Your task to perform on an android device: change the clock display to digital Image 0: 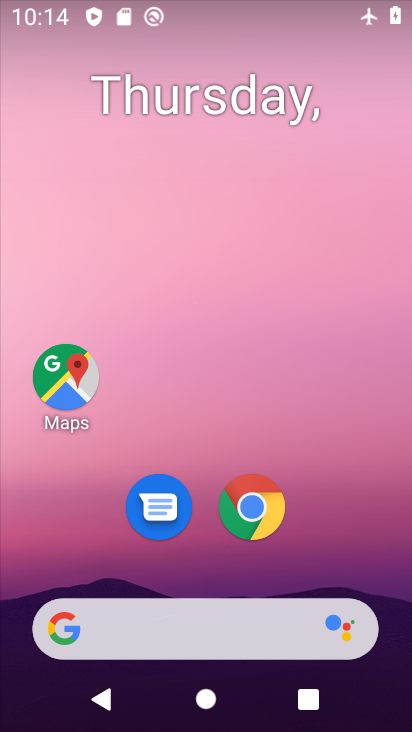
Step 0: drag from (307, 452) to (299, 4)
Your task to perform on an android device: change the clock display to digital Image 1: 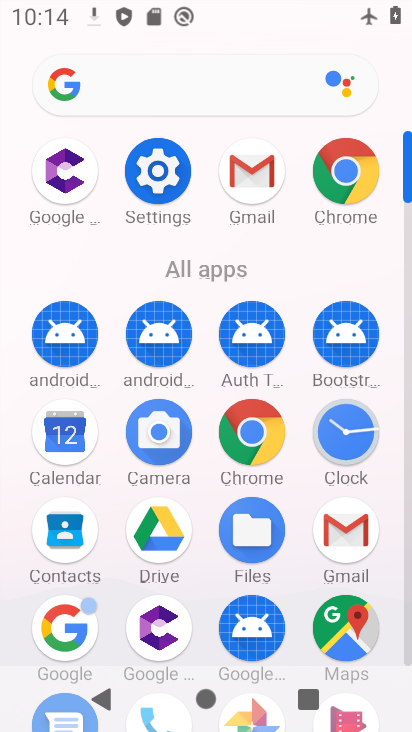
Step 1: drag from (6, 581) to (26, 246)
Your task to perform on an android device: change the clock display to digital Image 2: 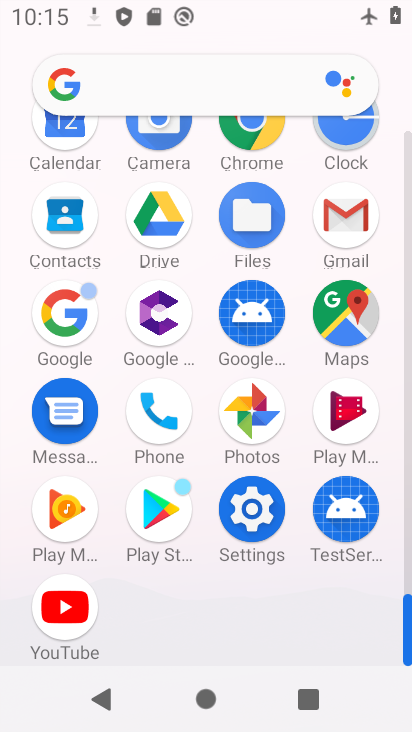
Step 2: drag from (20, 221) to (21, 417)
Your task to perform on an android device: change the clock display to digital Image 3: 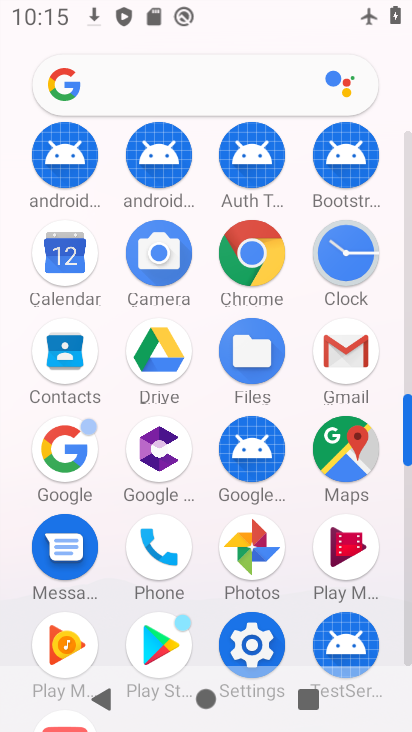
Step 3: click (338, 250)
Your task to perform on an android device: change the clock display to digital Image 4: 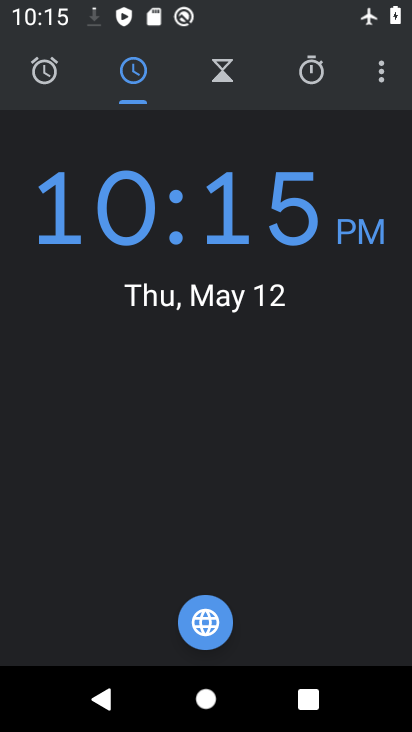
Step 4: drag from (384, 81) to (323, 143)
Your task to perform on an android device: change the clock display to digital Image 5: 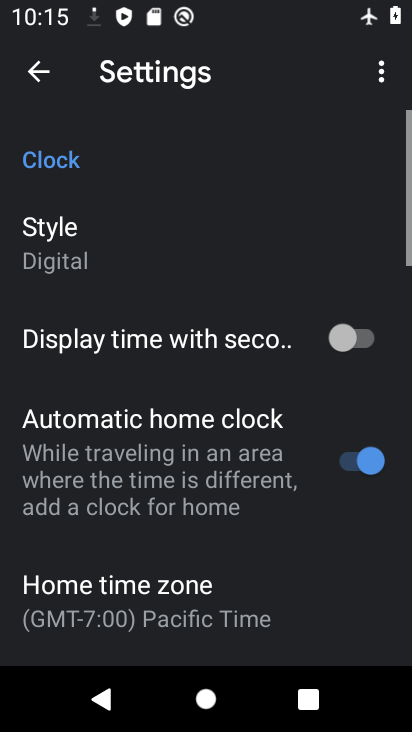
Step 5: click (140, 241)
Your task to perform on an android device: change the clock display to digital Image 6: 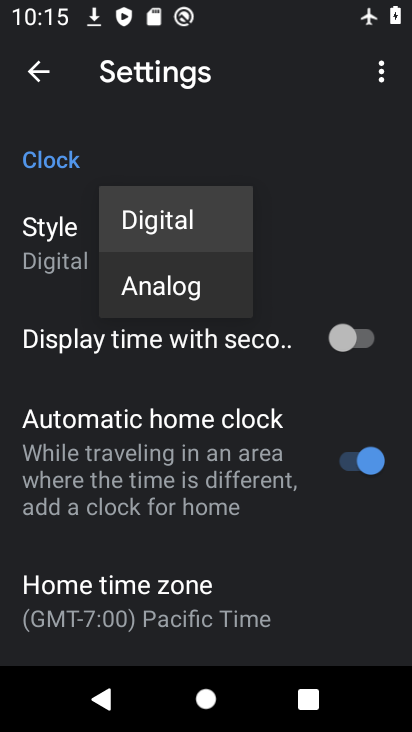
Step 6: click (142, 233)
Your task to perform on an android device: change the clock display to digital Image 7: 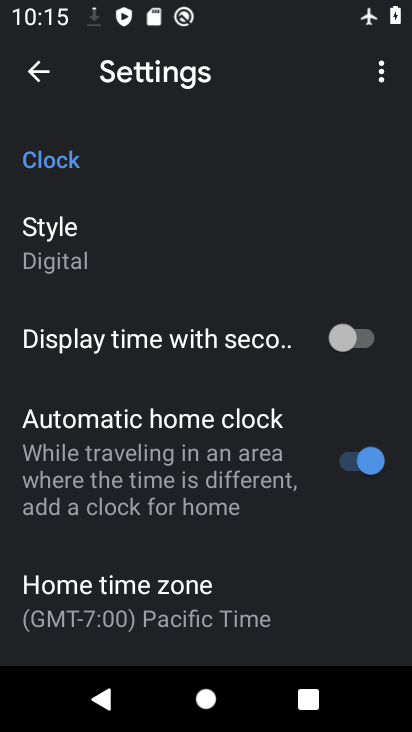
Step 7: task complete